Your task to perform on an android device: manage bookmarks in the chrome app Image 0: 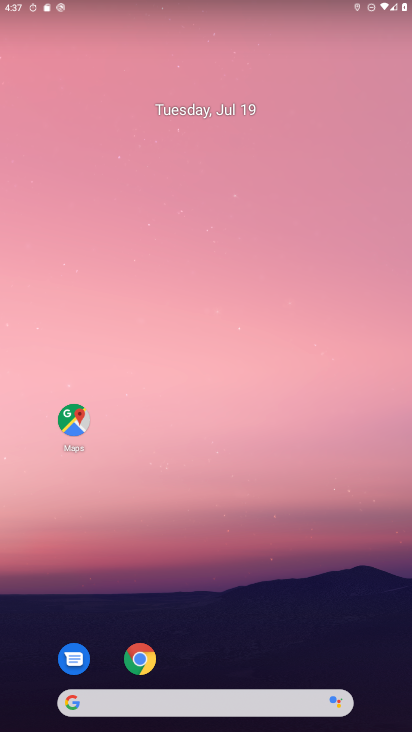
Step 0: drag from (287, 643) to (411, 75)
Your task to perform on an android device: manage bookmarks in the chrome app Image 1: 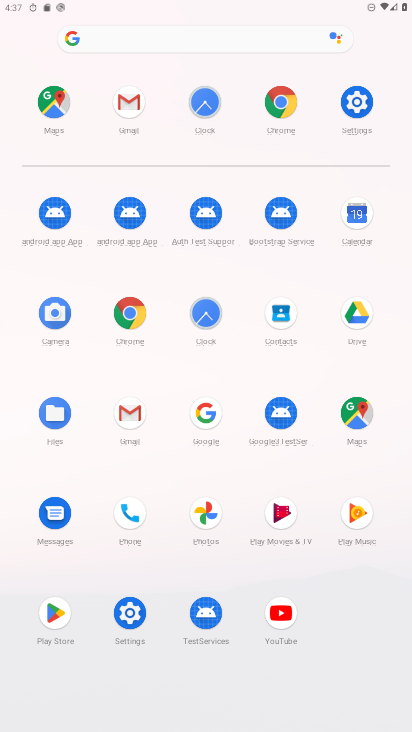
Step 1: click (280, 107)
Your task to perform on an android device: manage bookmarks in the chrome app Image 2: 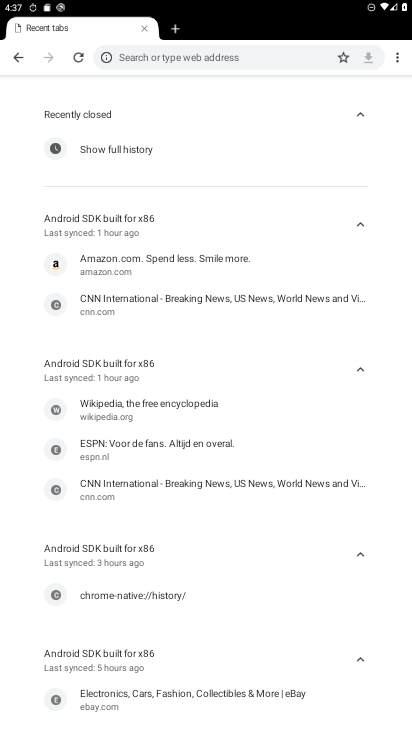
Step 2: drag from (403, 63) to (298, 112)
Your task to perform on an android device: manage bookmarks in the chrome app Image 3: 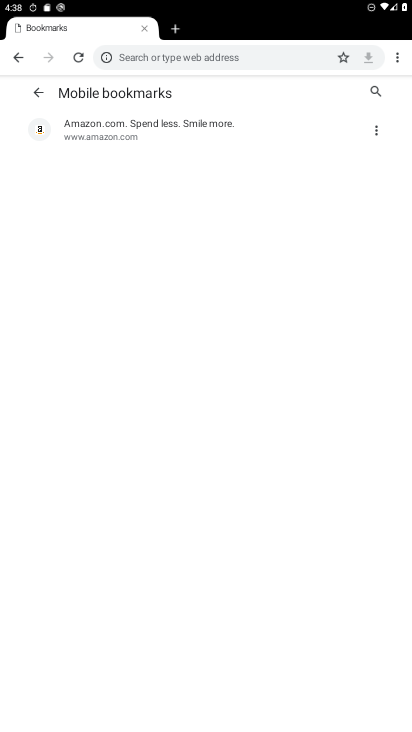
Step 3: click (366, 132)
Your task to perform on an android device: manage bookmarks in the chrome app Image 4: 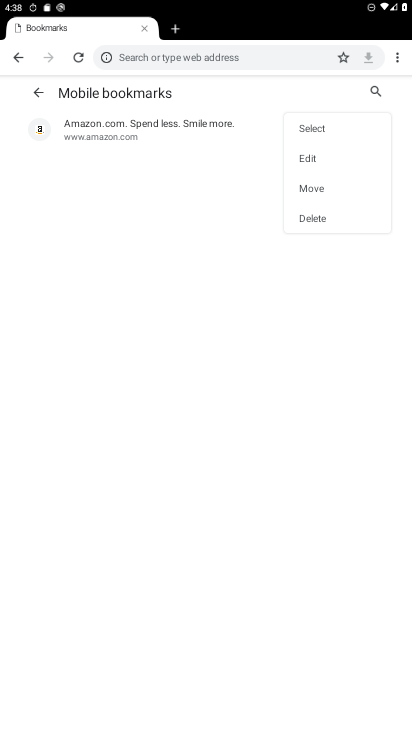
Step 4: click (316, 225)
Your task to perform on an android device: manage bookmarks in the chrome app Image 5: 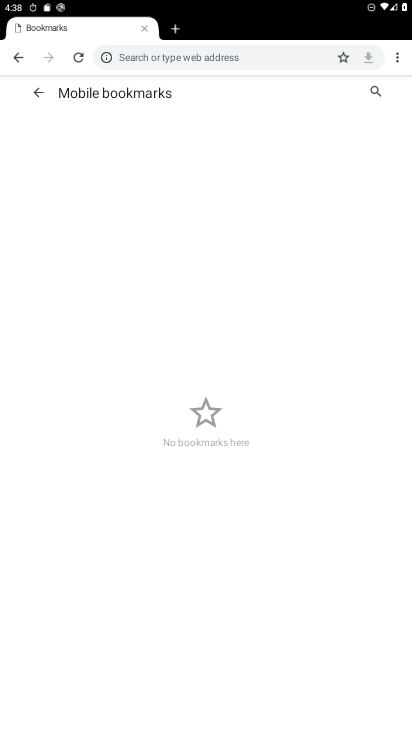
Step 5: task complete